Your task to perform on an android device: change the upload size in google photos Image 0: 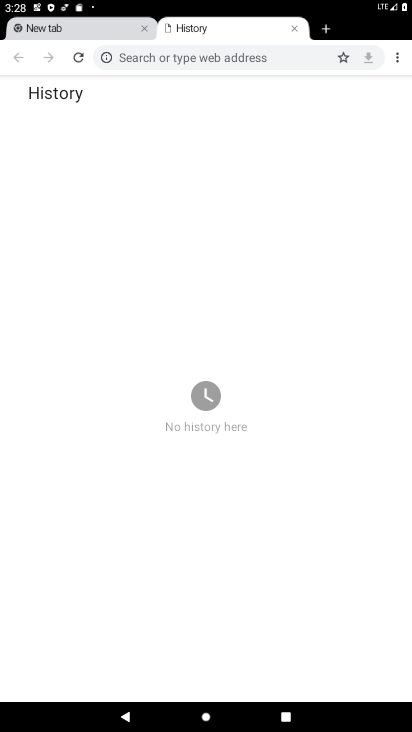
Step 0: press home button
Your task to perform on an android device: change the upload size in google photos Image 1: 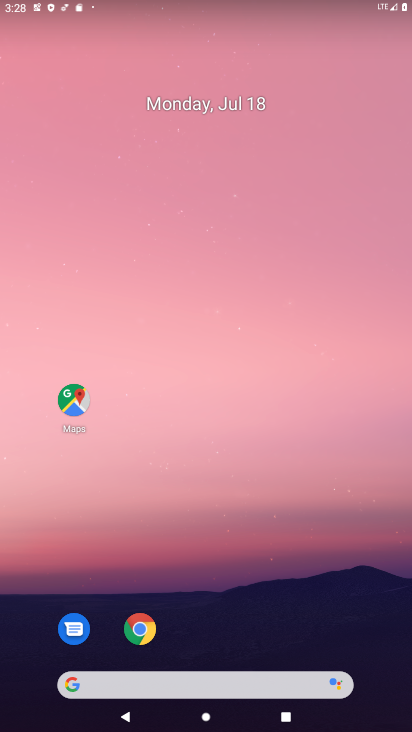
Step 1: drag from (213, 614) to (202, 94)
Your task to perform on an android device: change the upload size in google photos Image 2: 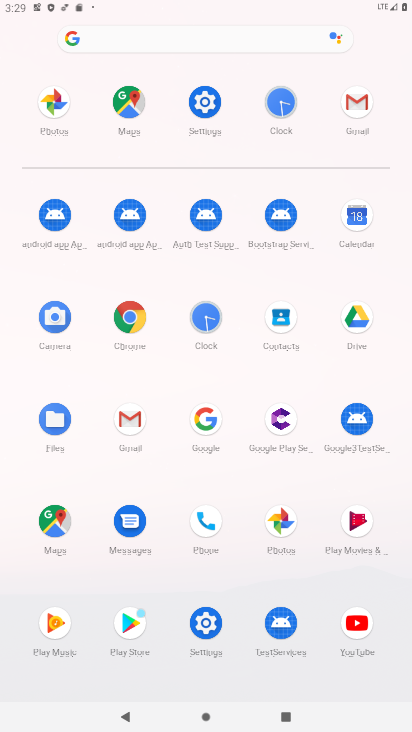
Step 2: click (267, 532)
Your task to perform on an android device: change the upload size in google photos Image 3: 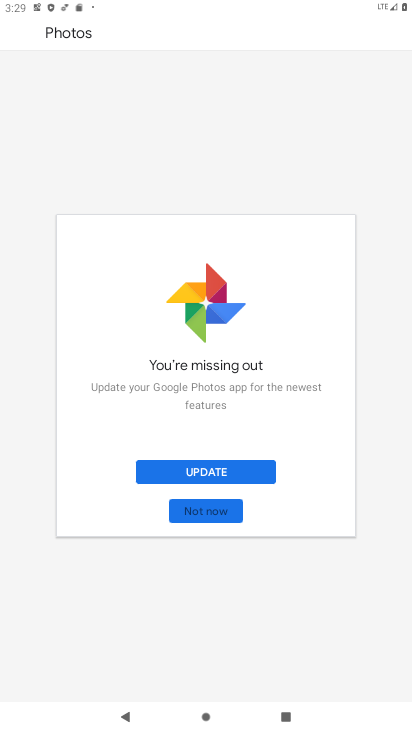
Step 3: click (226, 513)
Your task to perform on an android device: change the upload size in google photos Image 4: 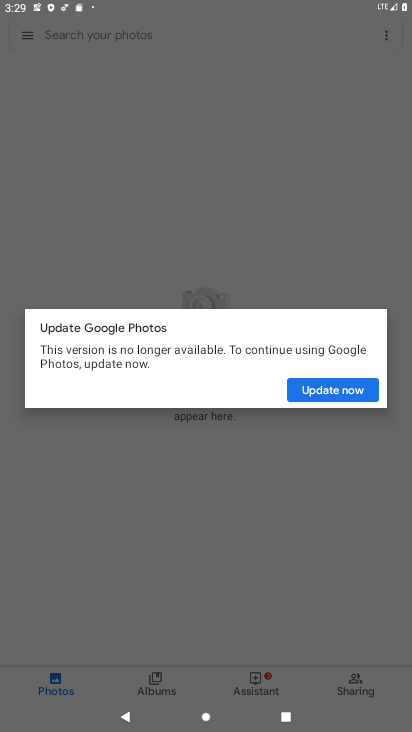
Step 4: click (331, 385)
Your task to perform on an android device: change the upload size in google photos Image 5: 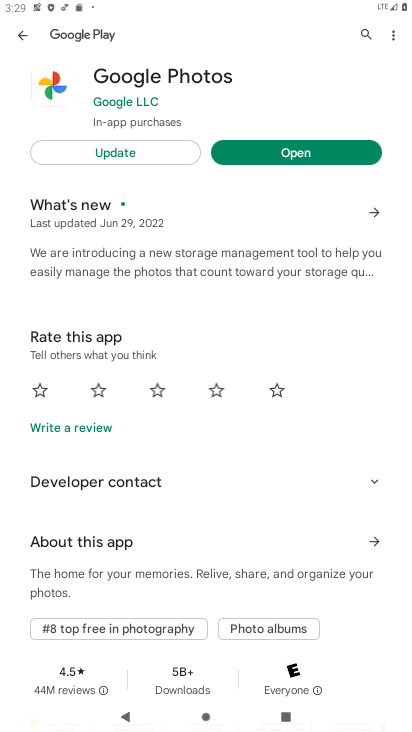
Step 5: click (263, 150)
Your task to perform on an android device: change the upload size in google photos Image 6: 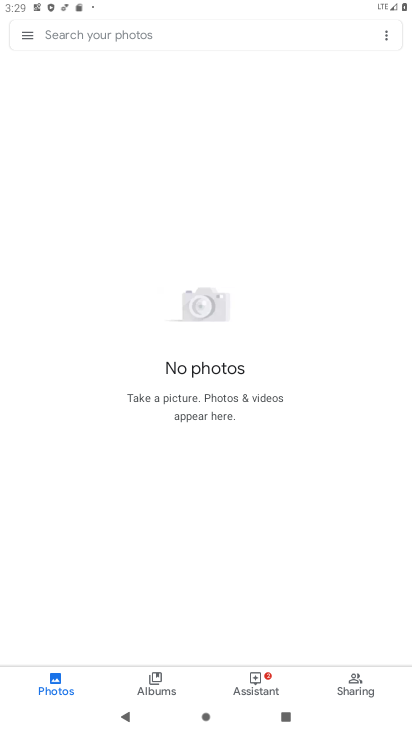
Step 6: click (25, 38)
Your task to perform on an android device: change the upload size in google photos Image 7: 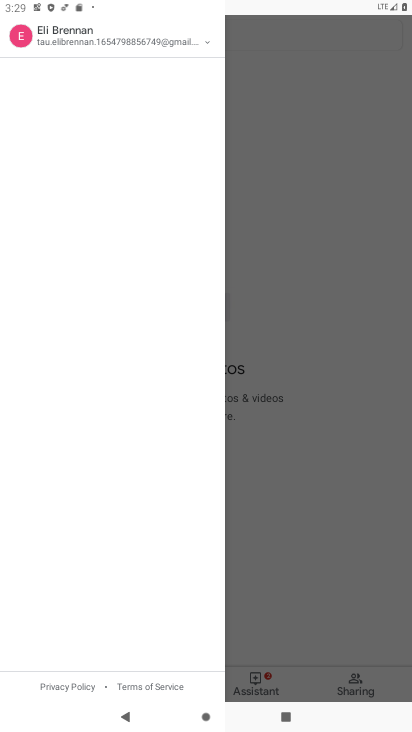
Step 7: drag from (95, 316) to (103, 168)
Your task to perform on an android device: change the upload size in google photos Image 8: 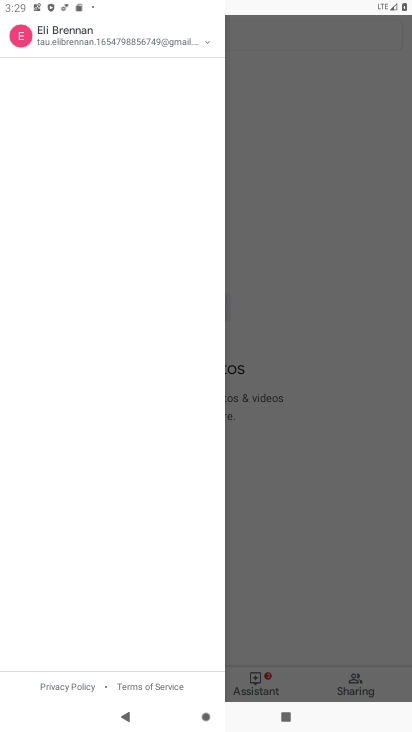
Step 8: drag from (105, 176) to (112, 409)
Your task to perform on an android device: change the upload size in google photos Image 9: 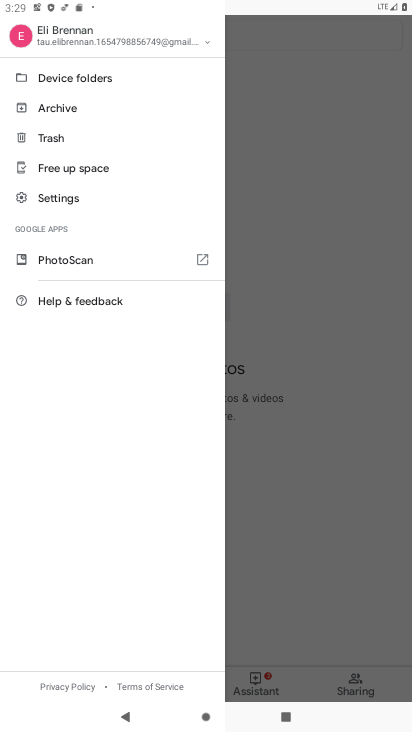
Step 9: click (65, 200)
Your task to perform on an android device: change the upload size in google photos Image 10: 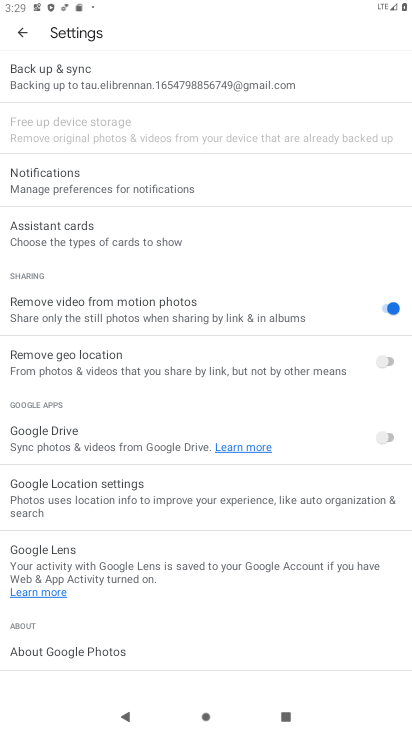
Step 10: click (95, 72)
Your task to perform on an android device: change the upload size in google photos Image 11: 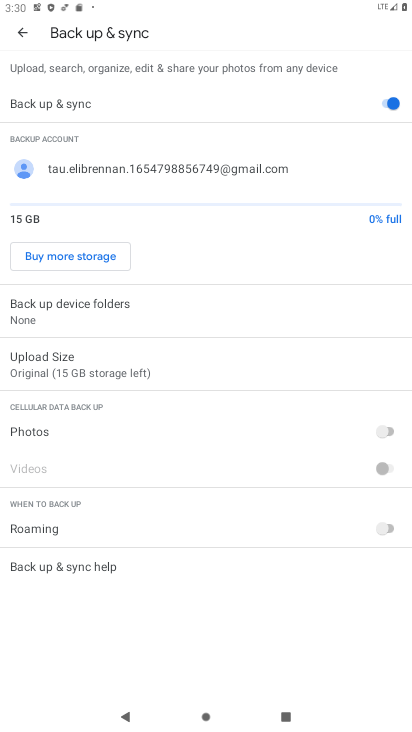
Step 11: click (84, 370)
Your task to perform on an android device: change the upload size in google photos Image 12: 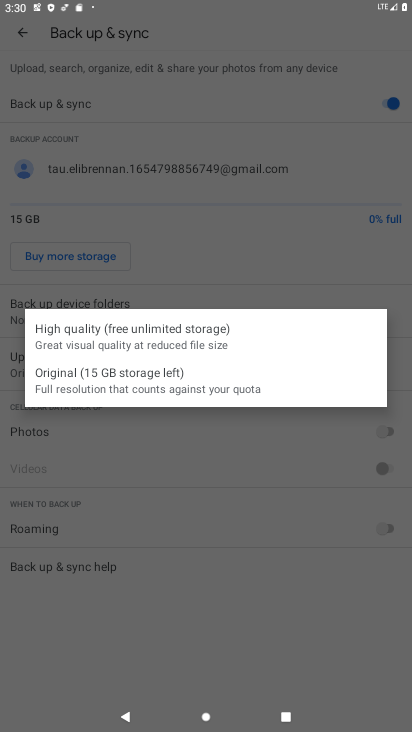
Step 12: click (82, 335)
Your task to perform on an android device: change the upload size in google photos Image 13: 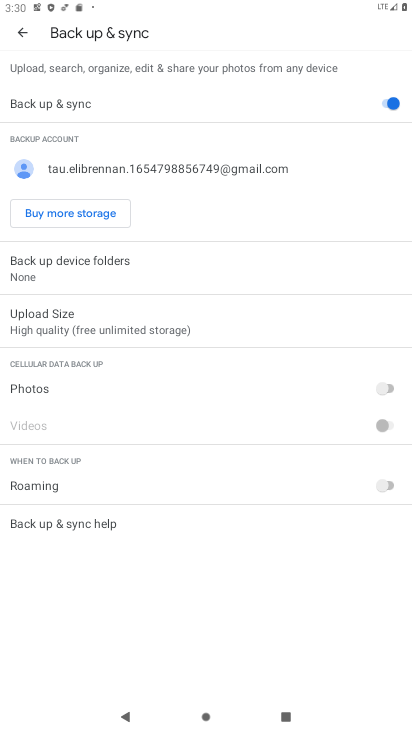
Step 13: task complete